Your task to perform on an android device: Open calendar and show me the first week of next month Image 0: 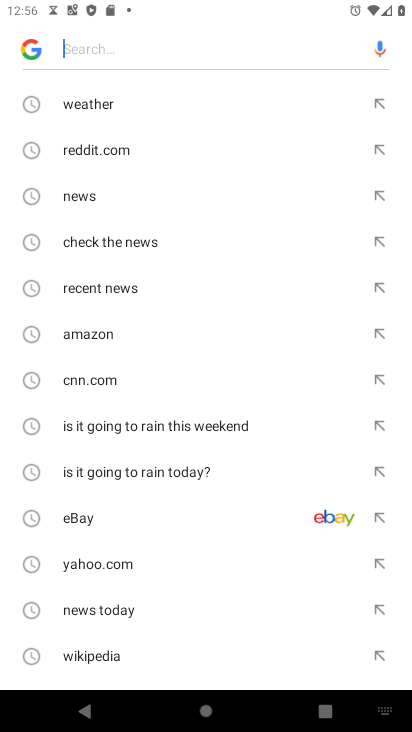
Step 0: press home button
Your task to perform on an android device: Open calendar and show me the first week of next month Image 1: 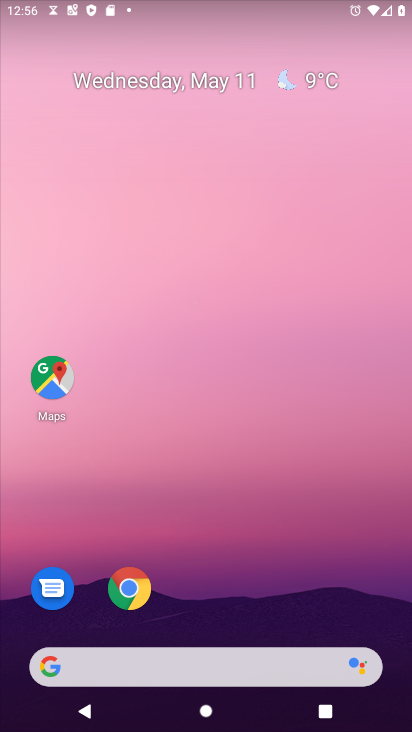
Step 1: drag from (297, 615) to (295, 5)
Your task to perform on an android device: Open calendar and show me the first week of next month Image 2: 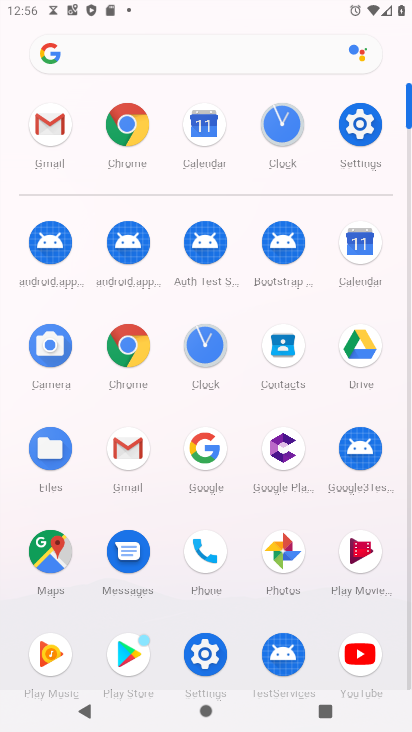
Step 2: click (205, 130)
Your task to perform on an android device: Open calendar and show me the first week of next month Image 3: 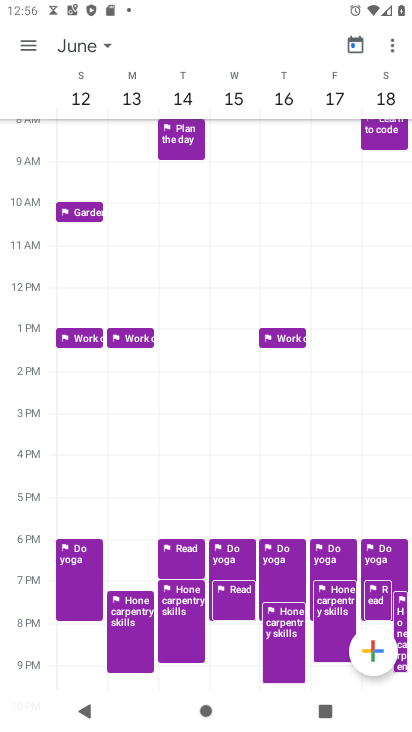
Step 3: task complete